Your task to perform on an android device: open app "Facebook" Image 0: 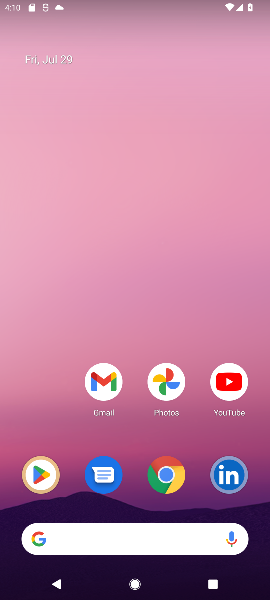
Step 0: click (47, 472)
Your task to perform on an android device: open app "Facebook" Image 1: 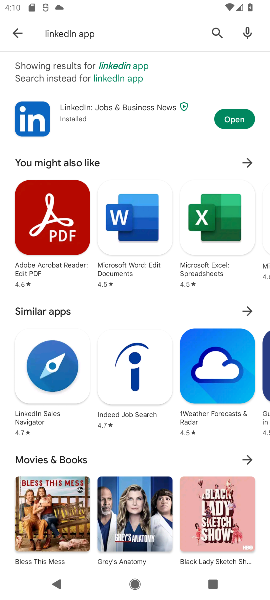
Step 1: click (26, 32)
Your task to perform on an android device: open app "Facebook" Image 2: 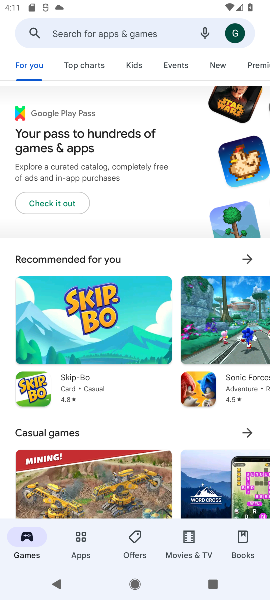
Step 2: click (85, 25)
Your task to perform on an android device: open app "Facebook" Image 3: 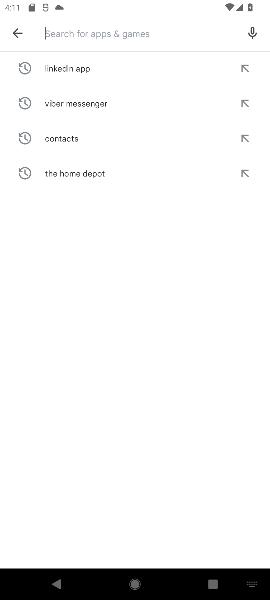
Step 3: click (67, 31)
Your task to perform on an android device: open app "Facebook" Image 4: 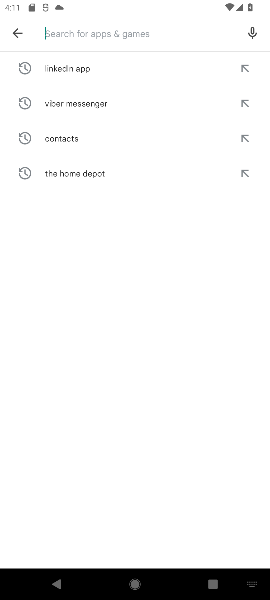
Step 4: type "Facebook""
Your task to perform on an android device: open app "Facebook" Image 5: 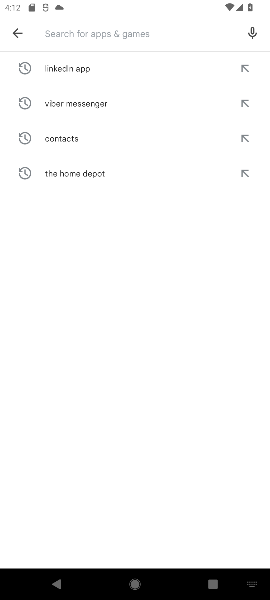
Step 5: type "Facebook"
Your task to perform on an android device: open app "Facebook" Image 6: 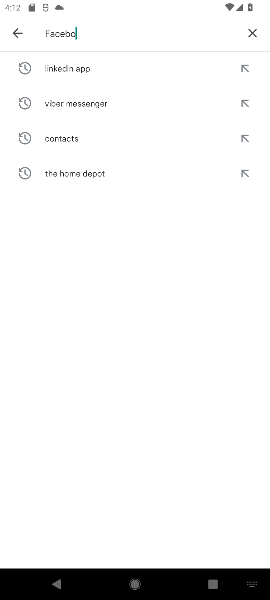
Step 6: type ""
Your task to perform on an android device: open app "Facebook" Image 7: 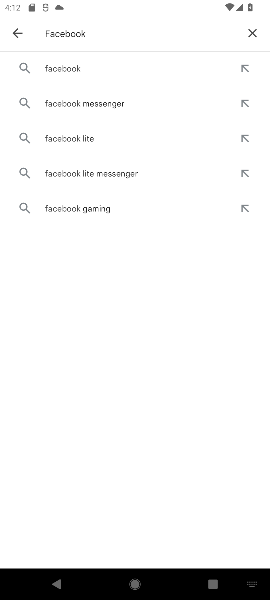
Step 7: click (59, 66)
Your task to perform on an android device: open app "Facebook" Image 8: 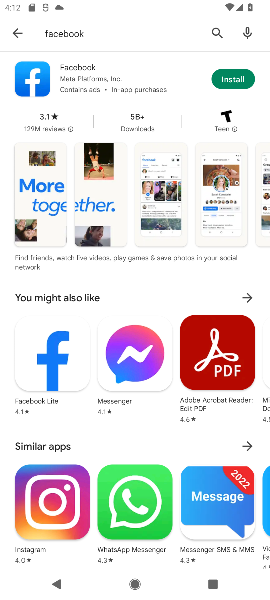
Step 8: task complete